Your task to perform on an android device: Turn on the flashlight Image 0: 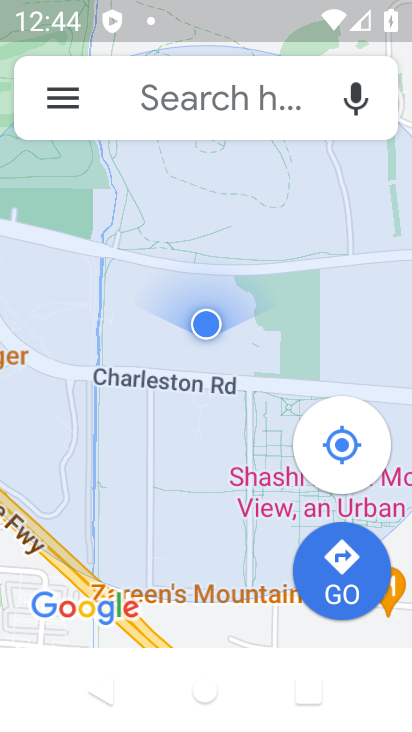
Step 0: drag from (202, 9) to (228, 297)
Your task to perform on an android device: Turn on the flashlight Image 1: 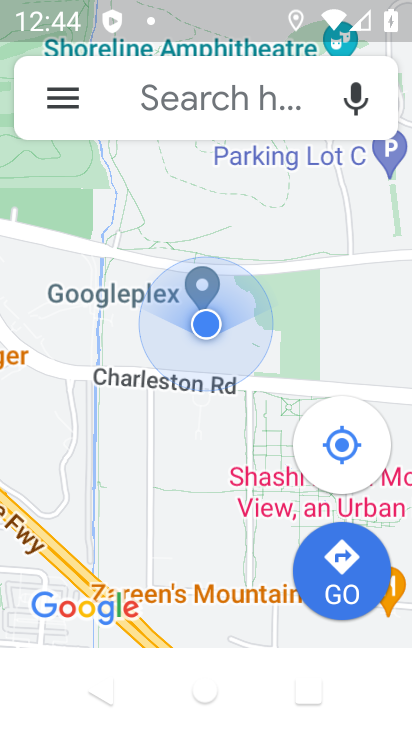
Step 1: drag from (186, 9) to (201, 302)
Your task to perform on an android device: Turn on the flashlight Image 2: 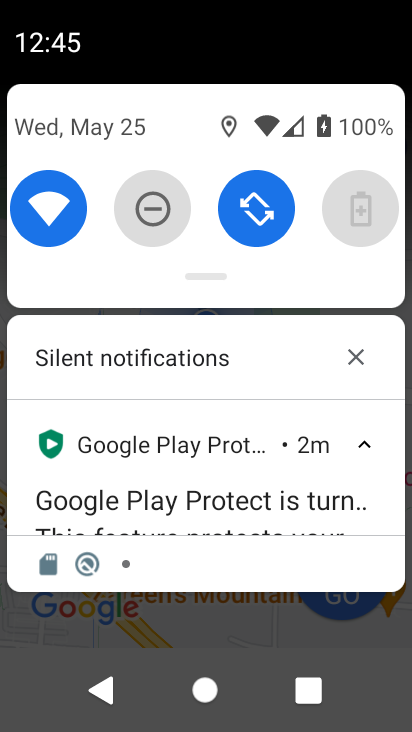
Step 2: drag from (204, 248) to (215, 659)
Your task to perform on an android device: Turn on the flashlight Image 3: 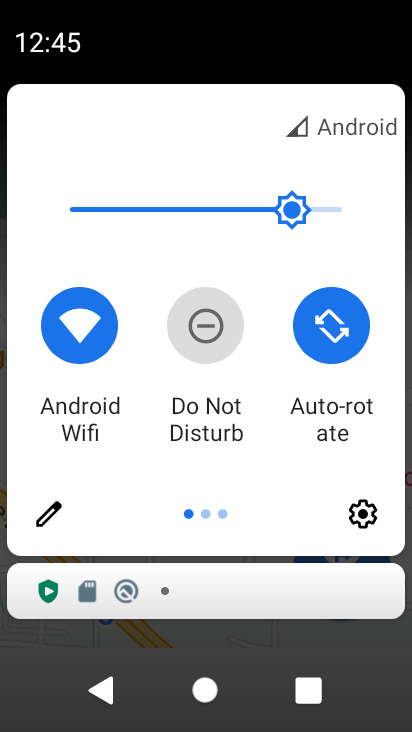
Step 3: click (57, 507)
Your task to perform on an android device: Turn on the flashlight Image 4: 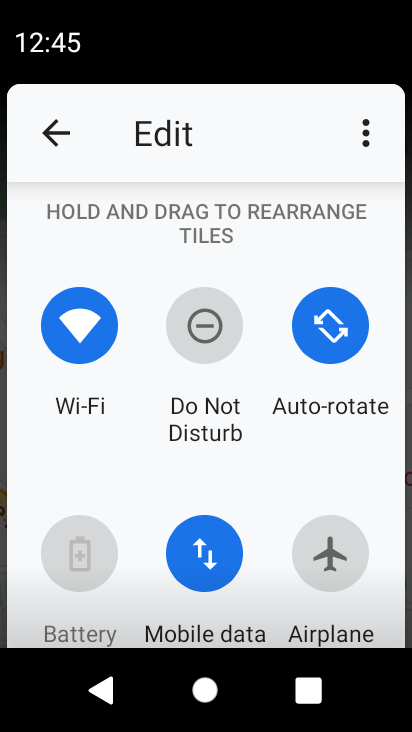
Step 4: task complete